Your task to perform on an android device: Open eBay Image 0: 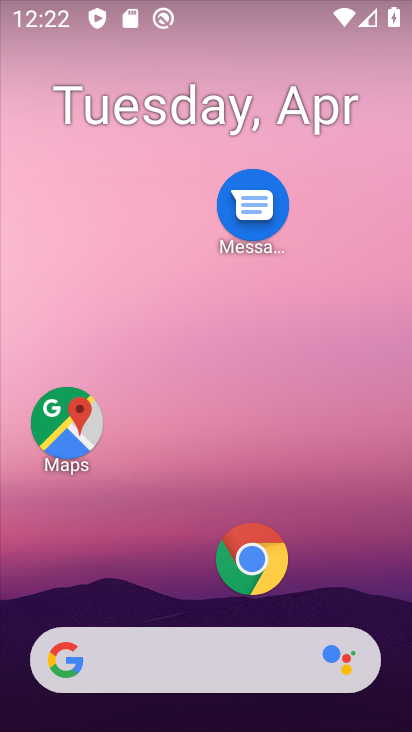
Step 0: click (247, 576)
Your task to perform on an android device: Open eBay Image 1: 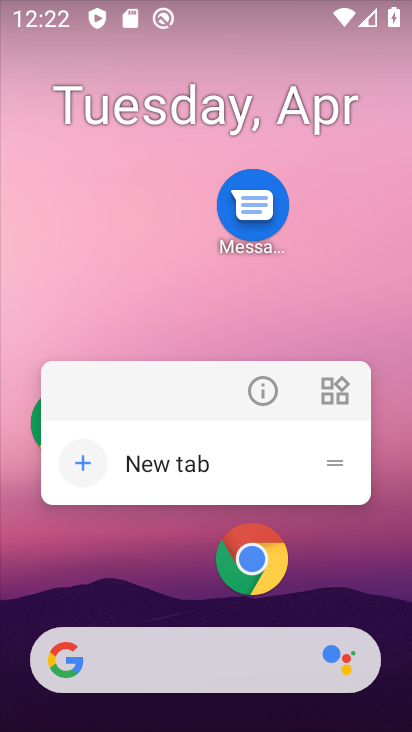
Step 1: click (257, 561)
Your task to perform on an android device: Open eBay Image 2: 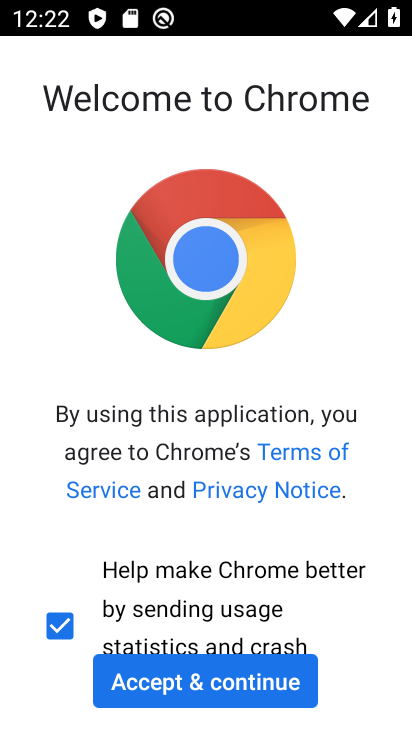
Step 2: click (197, 683)
Your task to perform on an android device: Open eBay Image 3: 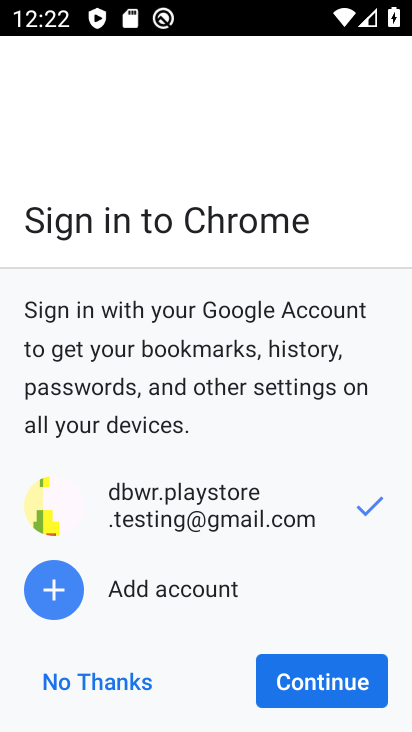
Step 3: click (342, 669)
Your task to perform on an android device: Open eBay Image 4: 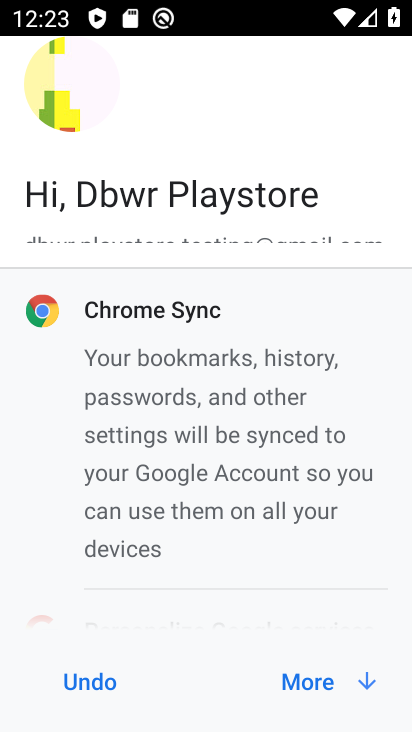
Step 4: click (342, 669)
Your task to perform on an android device: Open eBay Image 5: 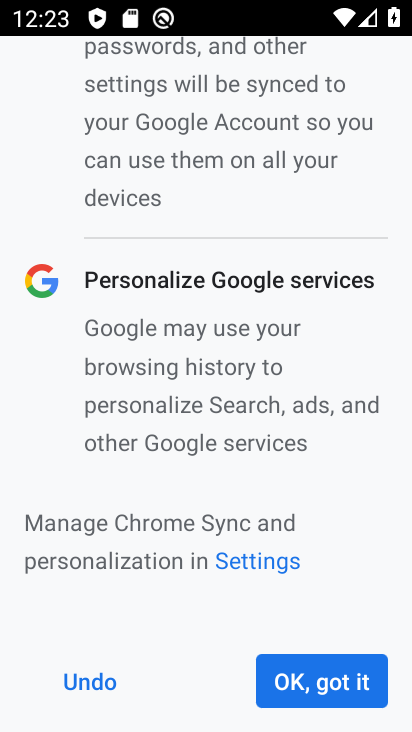
Step 5: click (342, 669)
Your task to perform on an android device: Open eBay Image 6: 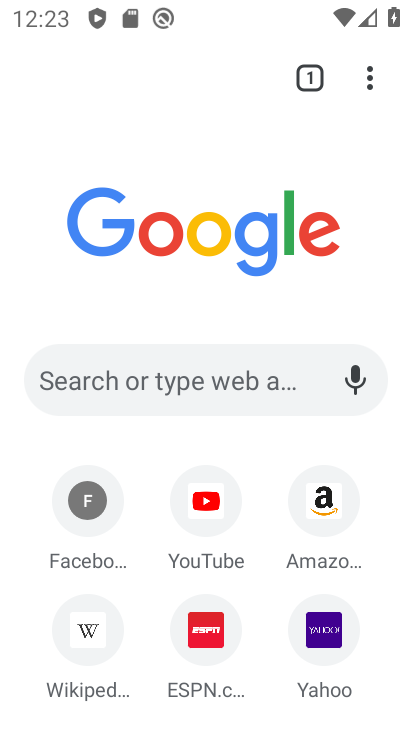
Step 6: click (168, 388)
Your task to perform on an android device: Open eBay Image 7: 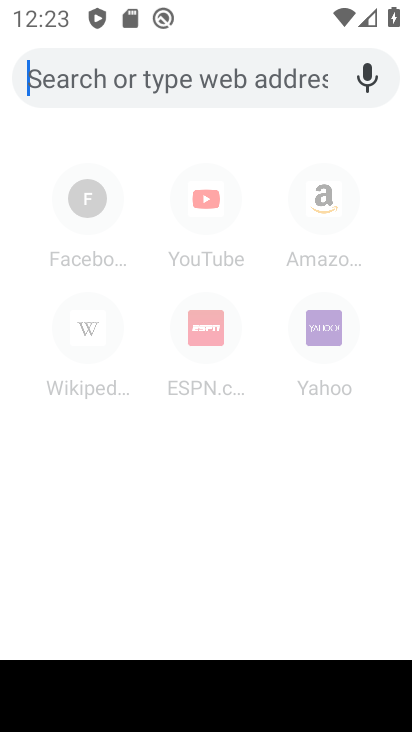
Step 7: type "ebay"
Your task to perform on an android device: Open eBay Image 8: 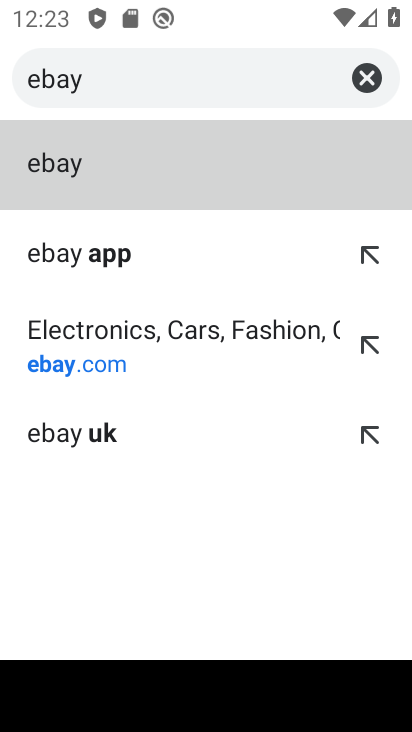
Step 8: click (211, 181)
Your task to perform on an android device: Open eBay Image 9: 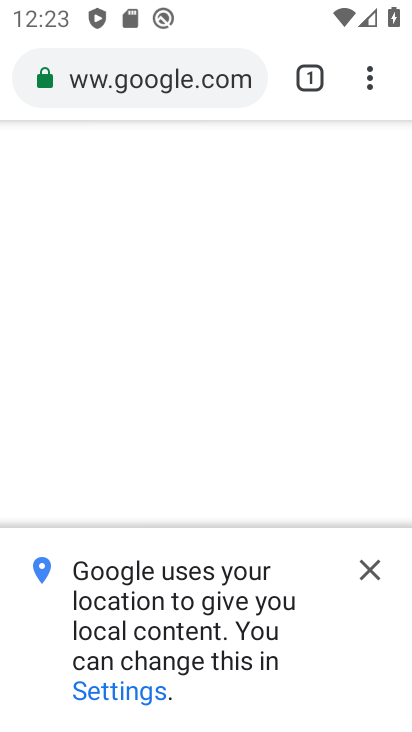
Step 9: click (373, 570)
Your task to perform on an android device: Open eBay Image 10: 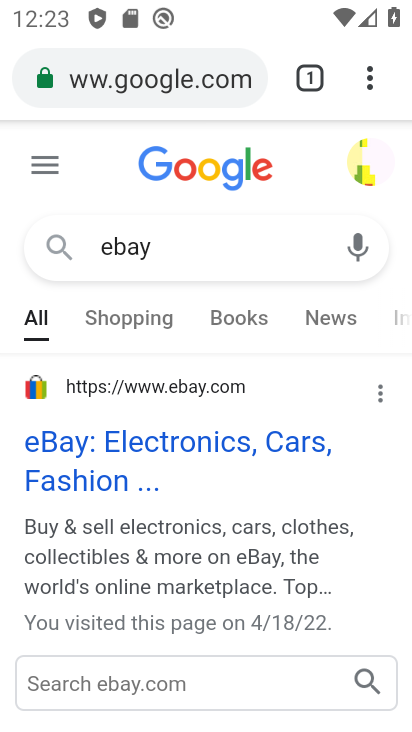
Step 10: click (92, 441)
Your task to perform on an android device: Open eBay Image 11: 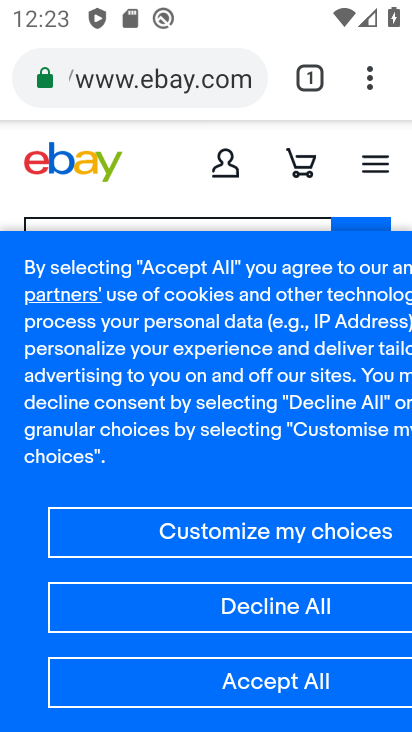
Step 11: task complete